Your task to perform on an android device: turn off notifications settings in the gmail app Image 0: 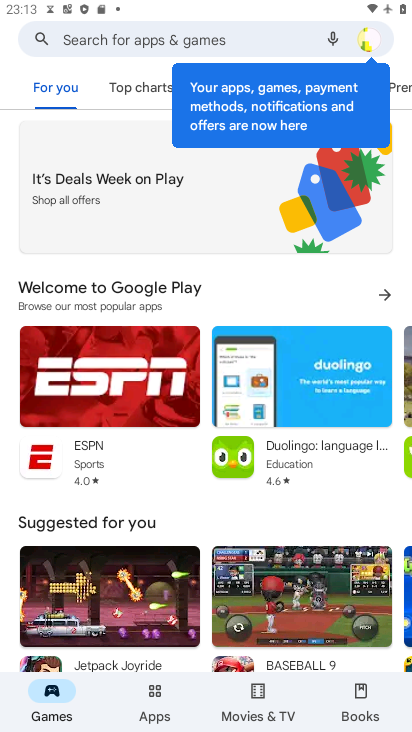
Step 0: press home button
Your task to perform on an android device: turn off notifications settings in the gmail app Image 1: 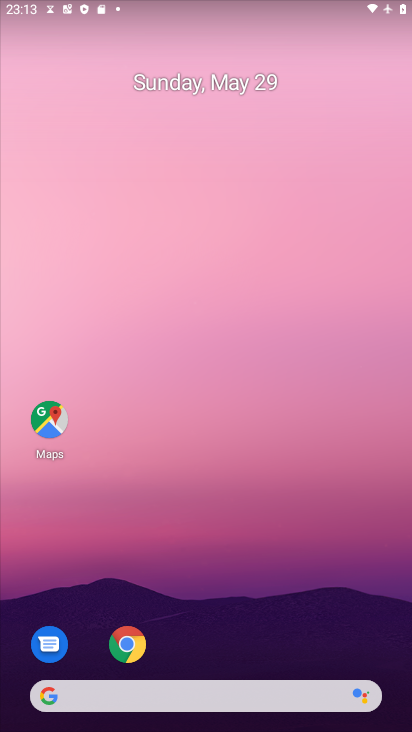
Step 1: drag from (196, 627) to (207, 300)
Your task to perform on an android device: turn off notifications settings in the gmail app Image 2: 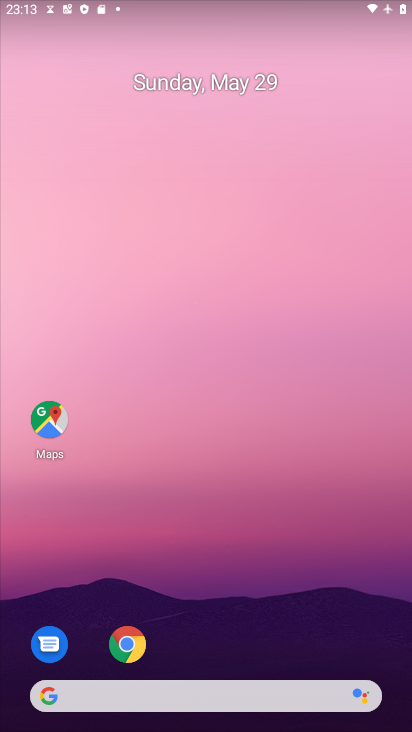
Step 2: drag from (163, 588) to (208, 257)
Your task to perform on an android device: turn off notifications settings in the gmail app Image 3: 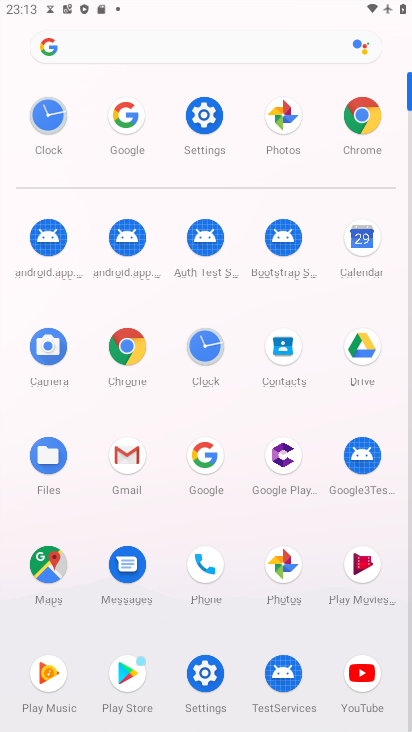
Step 3: click (125, 458)
Your task to perform on an android device: turn off notifications settings in the gmail app Image 4: 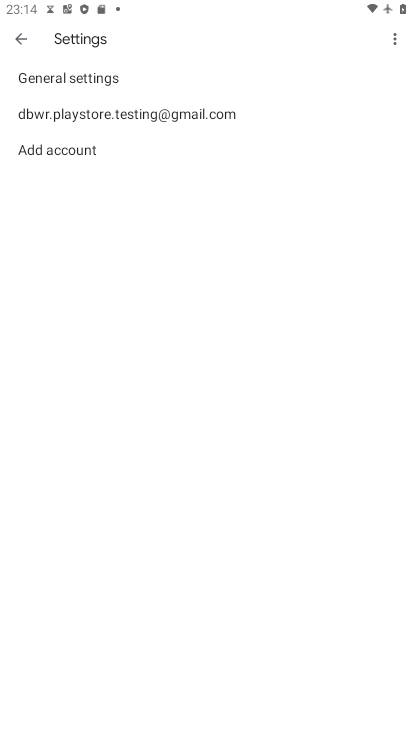
Step 4: click (155, 112)
Your task to perform on an android device: turn off notifications settings in the gmail app Image 5: 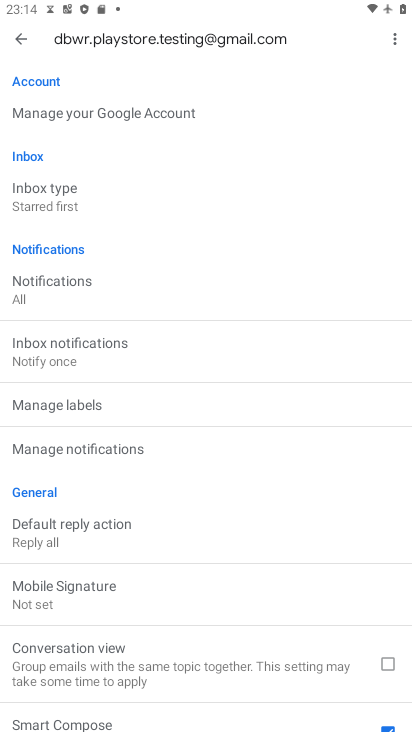
Step 5: click (112, 348)
Your task to perform on an android device: turn off notifications settings in the gmail app Image 6: 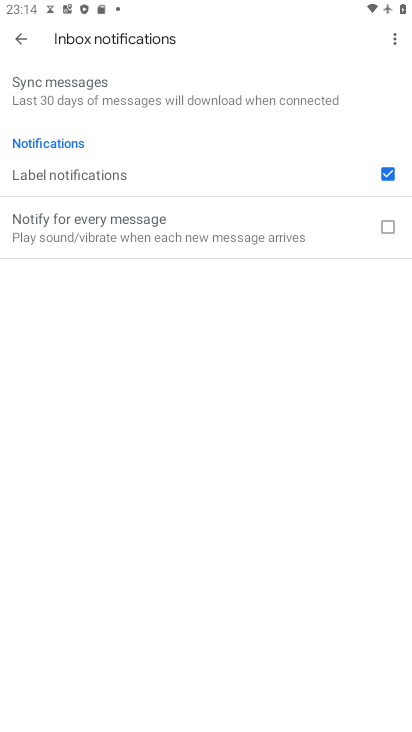
Step 6: click (16, 40)
Your task to perform on an android device: turn off notifications settings in the gmail app Image 7: 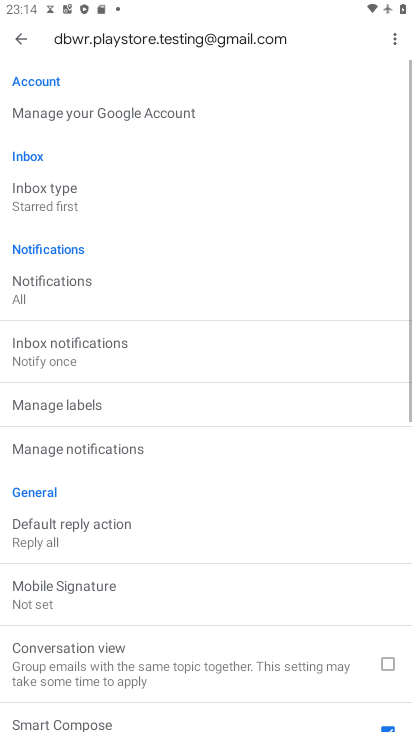
Step 7: click (74, 290)
Your task to perform on an android device: turn off notifications settings in the gmail app Image 8: 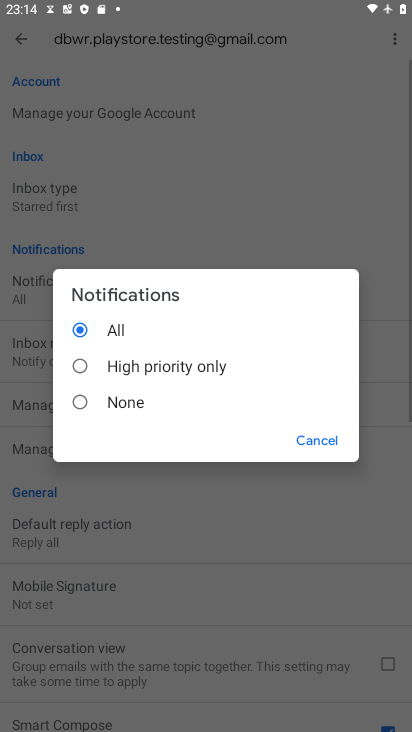
Step 8: click (120, 402)
Your task to perform on an android device: turn off notifications settings in the gmail app Image 9: 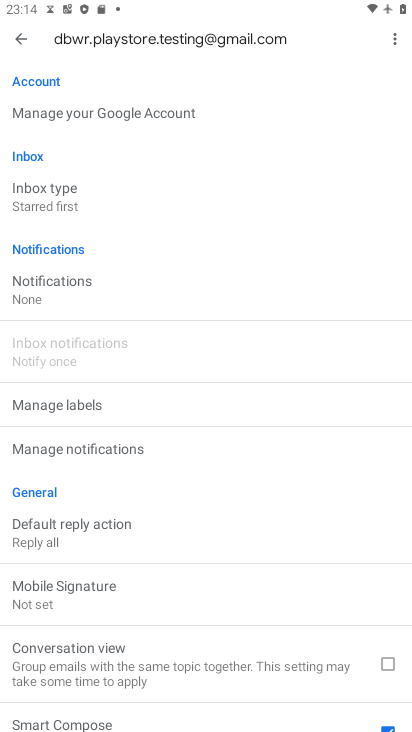
Step 9: task complete